Your task to perform on an android device: add a contact in the contacts app Image 0: 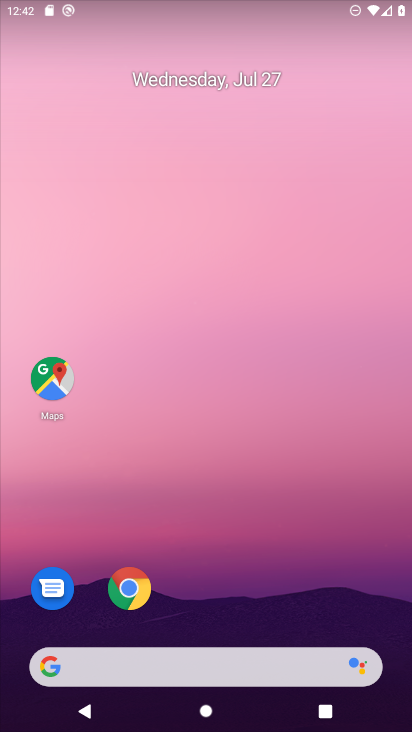
Step 0: drag from (227, 415) to (301, 167)
Your task to perform on an android device: add a contact in the contacts app Image 1: 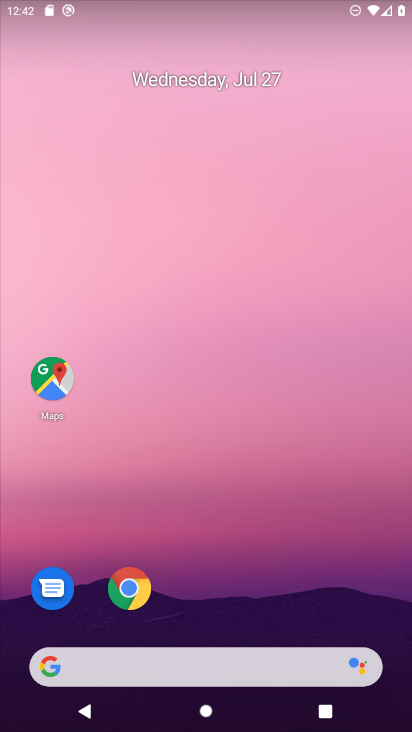
Step 1: drag from (71, 678) to (226, 246)
Your task to perform on an android device: add a contact in the contacts app Image 2: 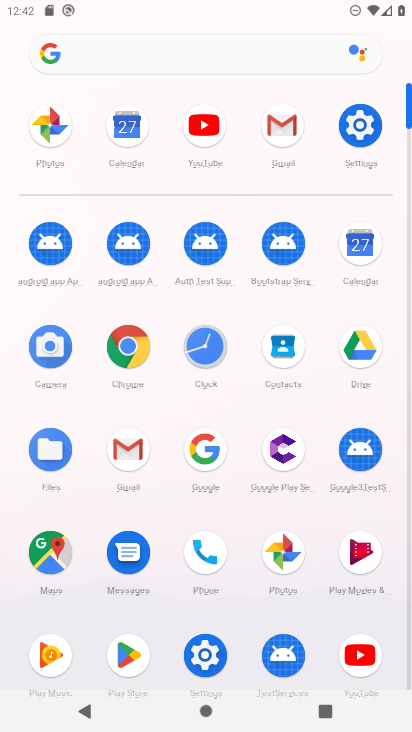
Step 2: click (282, 352)
Your task to perform on an android device: add a contact in the contacts app Image 3: 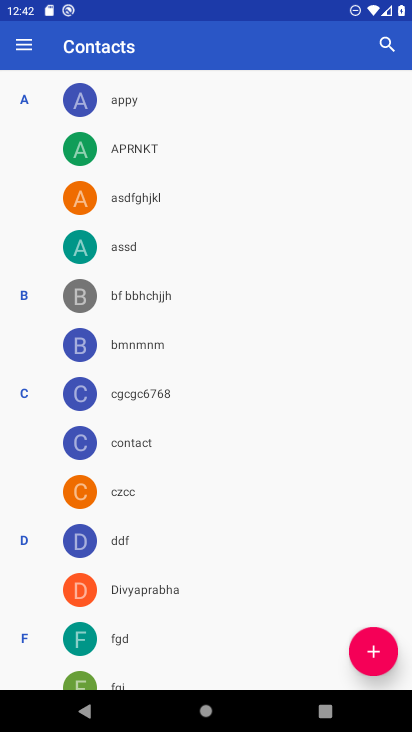
Step 3: click (385, 647)
Your task to perform on an android device: add a contact in the contacts app Image 4: 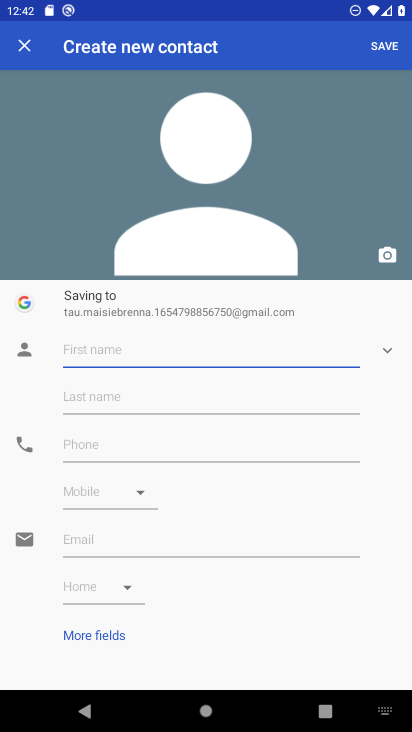
Step 4: type "fdherd"
Your task to perform on an android device: add a contact in the contacts app Image 5: 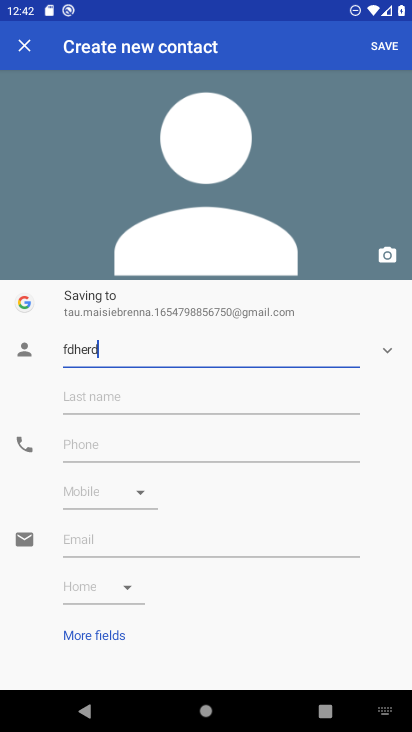
Step 5: type ""
Your task to perform on an android device: add a contact in the contacts app Image 6: 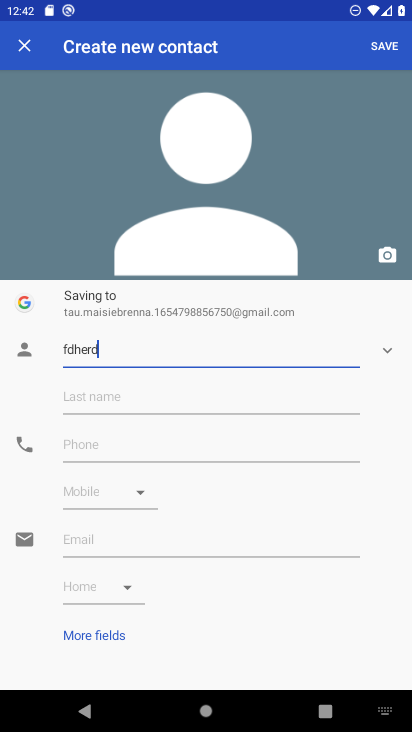
Step 6: click (386, 51)
Your task to perform on an android device: add a contact in the contacts app Image 7: 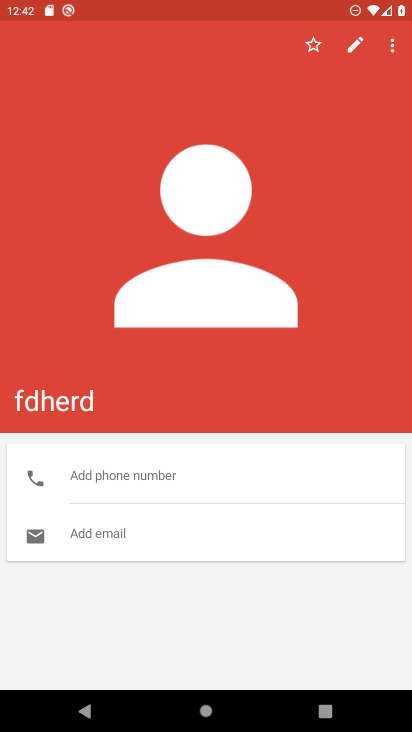
Step 7: task complete